Your task to perform on an android device: Go to display settings Image 0: 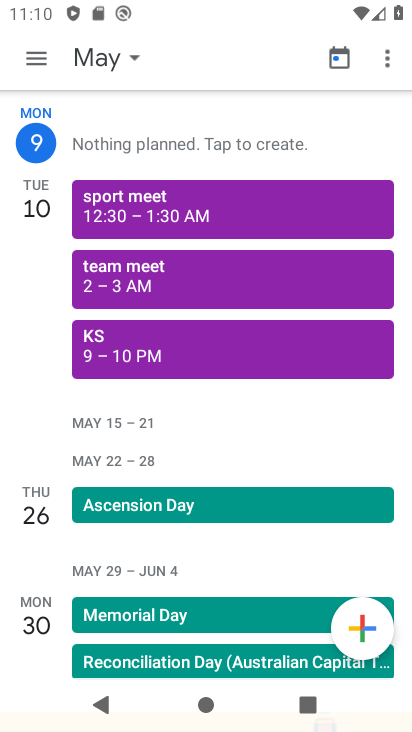
Step 0: press home button
Your task to perform on an android device: Go to display settings Image 1: 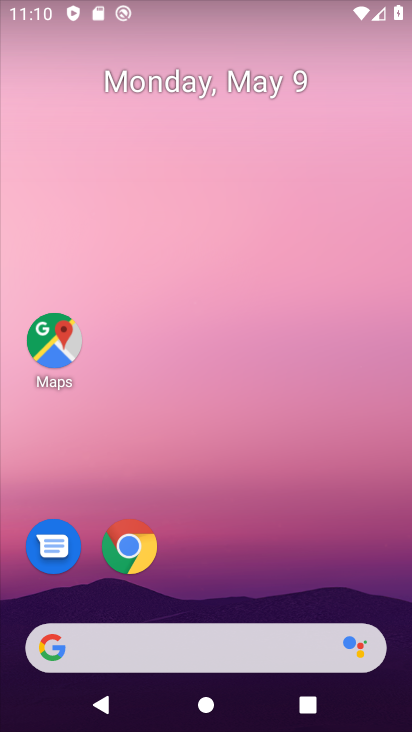
Step 1: drag from (373, 412) to (354, 11)
Your task to perform on an android device: Go to display settings Image 2: 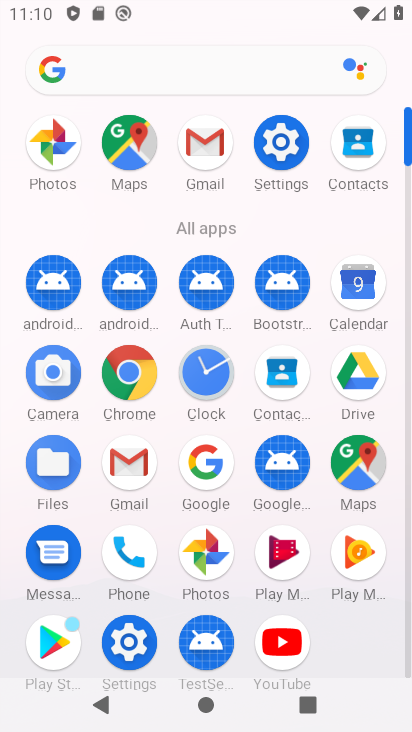
Step 2: click (279, 158)
Your task to perform on an android device: Go to display settings Image 3: 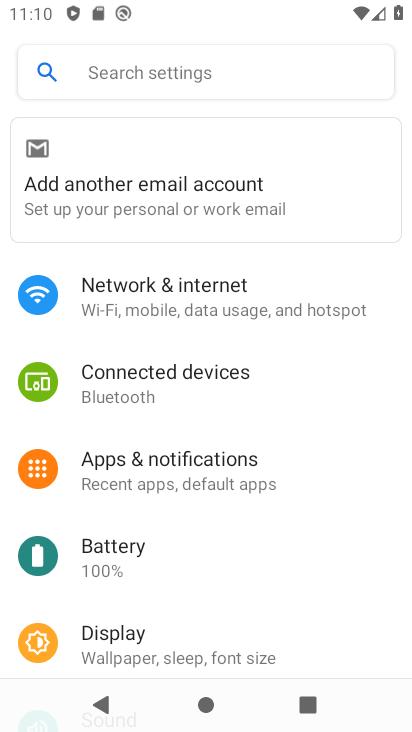
Step 3: click (112, 638)
Your task to perform on an android device: Go to display settings Image 4: 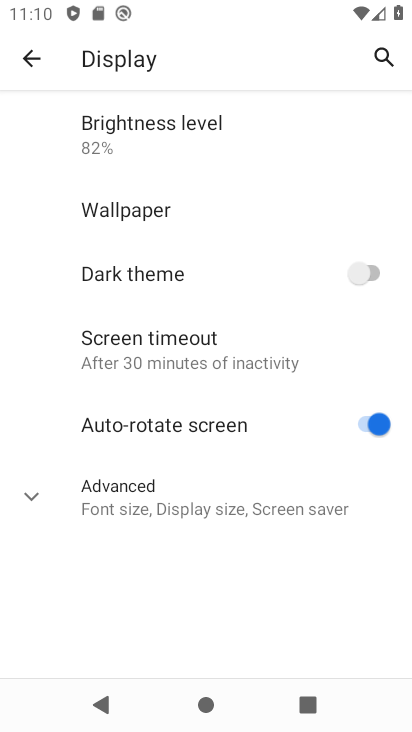
Step 4: task complete